Your task to perform on an android device: turn on priority inbox in the gmail app Image 0: 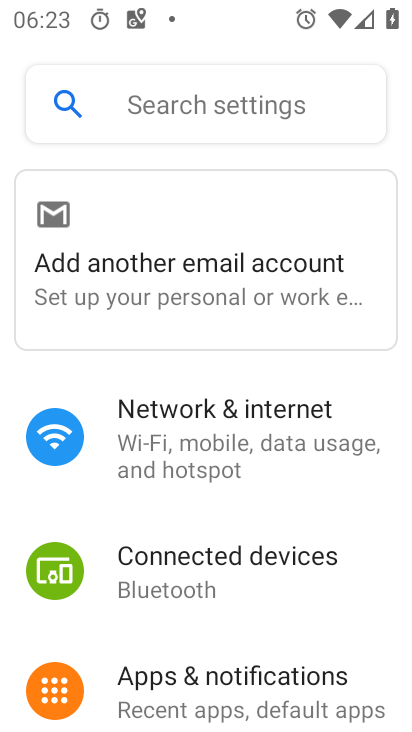
Step 0: press home button
Your task to perform on an android device: turn on priority inbox in the gmail app Image 1: 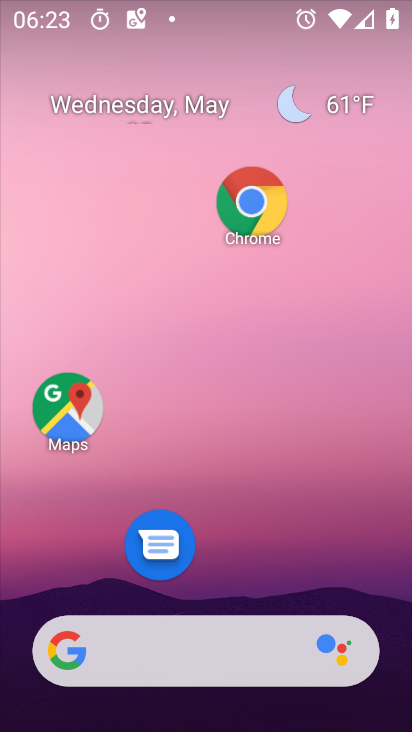
Step 1: drag from (203, 621) to (203, 199)
Your task to perform on an android device: turn on priority inbox in the gmail app Image 2: 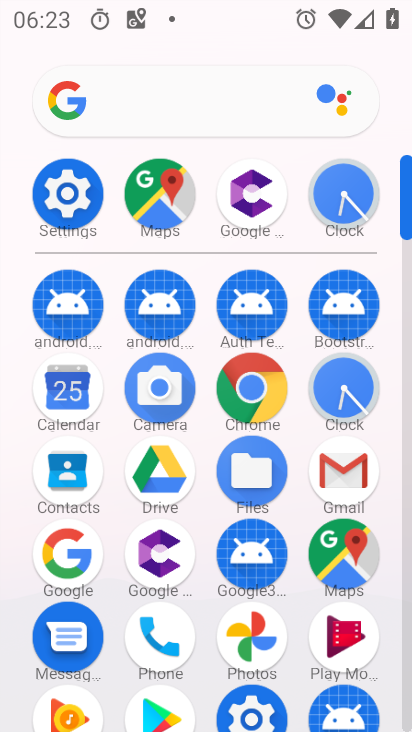
Step 2: click (356, 478)
Your task to perform on an android device: turn on priority inbox in the gmail app Image 3: 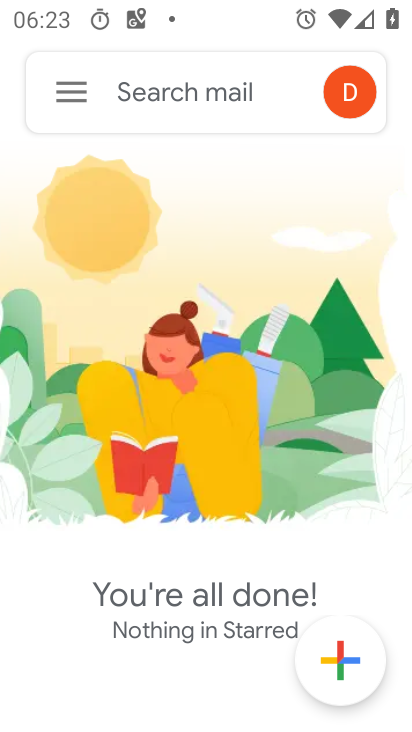
Step 3: click (71, 101)
Your task to perform on an android device: turn on priority inbox in the gmail app Image 4: 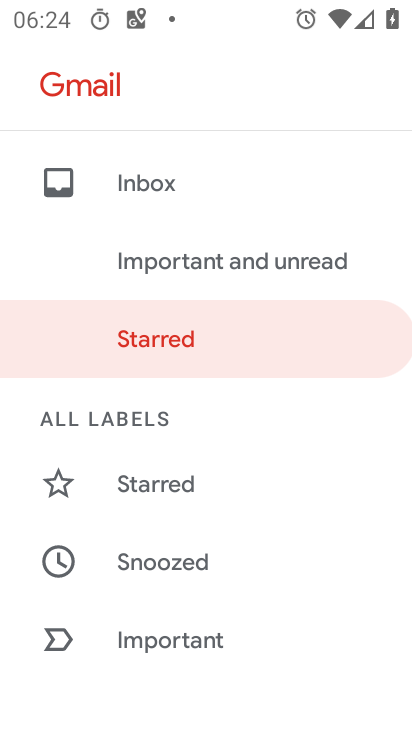
Step 4: drag from (178, 674) to (156, 289)
Your task to perform on an android device: turn on priority inbox in the gmail app Image 5: 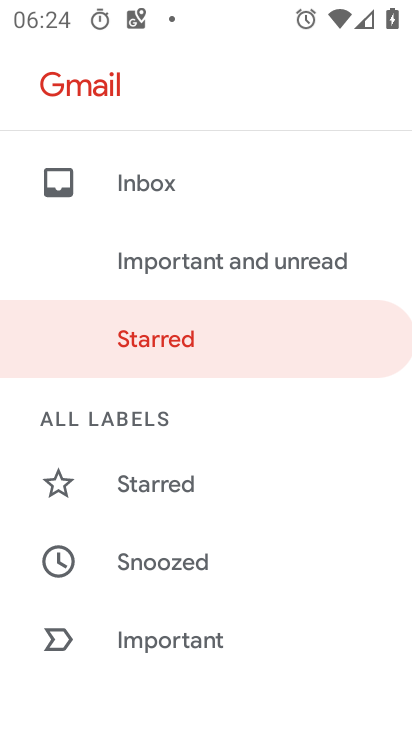
Step 5: drag from (204, 626) to (198, 288)
Your task to perform on an android device: turn on priority inbox in the gmail app Image 6: 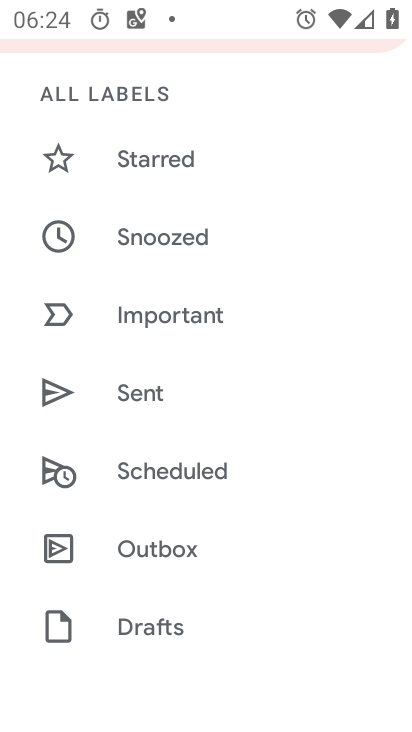
Step 6: drag from (191, 625) to (187, 303)
Your task to perform on an android device: turn on priority inbox in the gmail app Image 7: 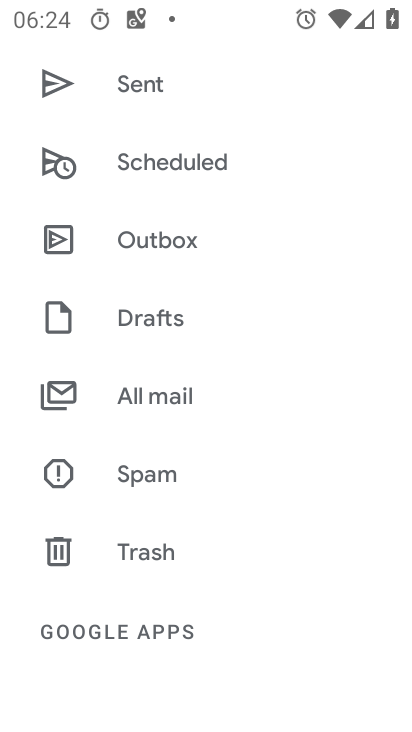
Step 7: drag from (194, 634) to (187, 330)
Your task to perform on an android device: turn on priority inbox in the gmail app Image 8: 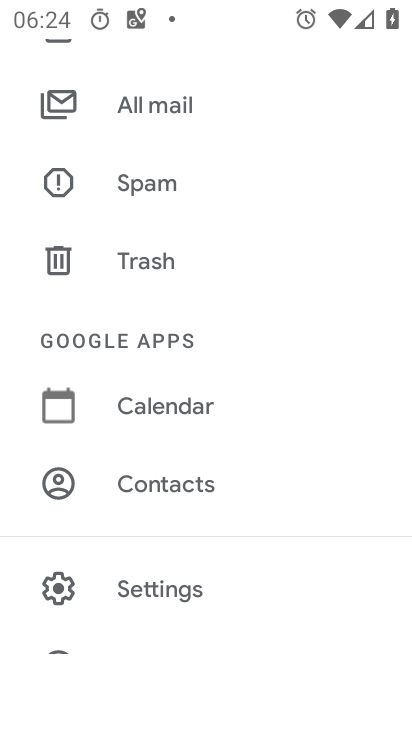
Step 8: click (198, 598)
Your task to perform on an android device: turn on priority inbox in the gmail app Image 9: 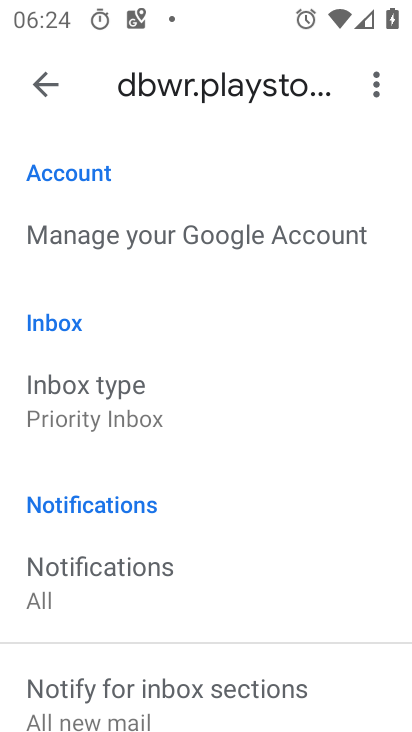
Step 9: drag from (182, 679) to (200, 246)
Your task to perform on an android device: turn on priority inbox in the gmail app Image 10: 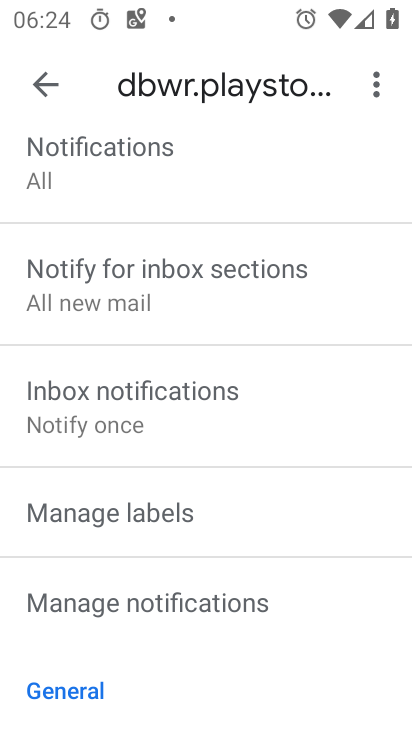
Step 10: drag from (192, 161) to (186, 611)
Your task to perform on an android device: turn on priority inbox in the gmail app Image 11: 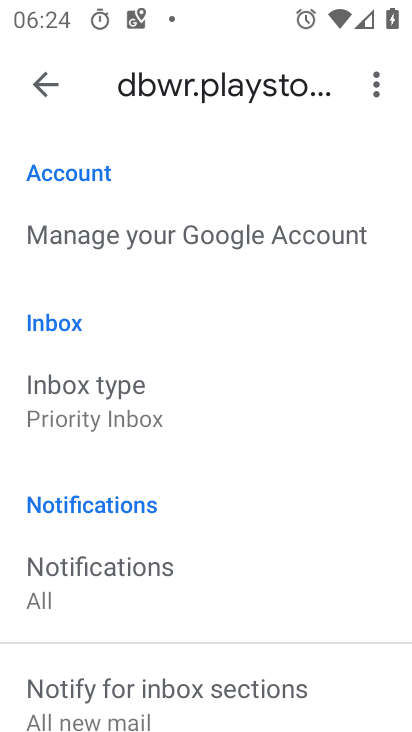
Step 11: click (56, 407)
Your task to perform on an android device: turn on priority inbox in the gmail app Image 12: 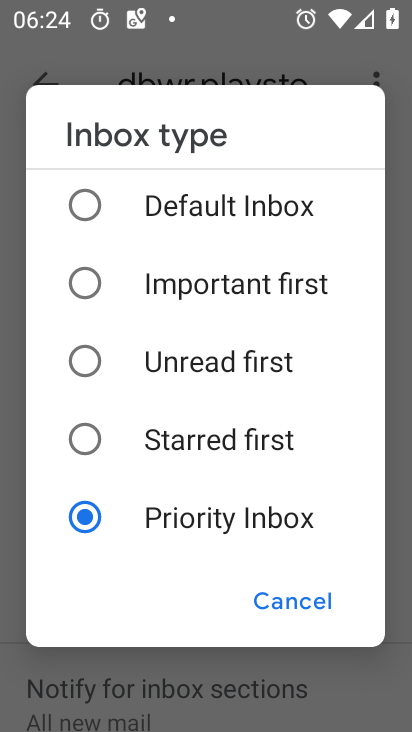
Step 12: task complete